Your task to perform on an android device: Search for a custom made wallet Image 0: 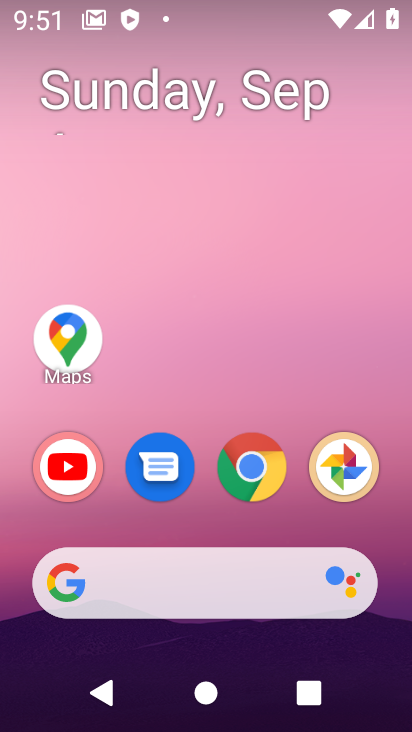
Step 0: click (257, 469)
Your task to perform on an android device: Search for a custom made wallet Image 1: 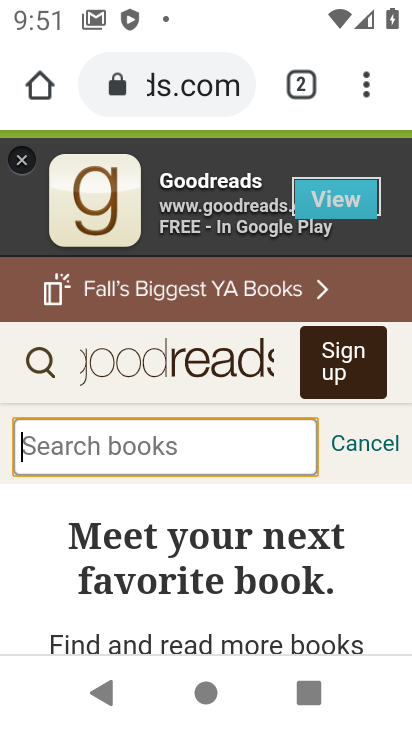
Step 1: click (190, 81)
Your task to perform on an android device: Search for a custom made wallet Image 2: 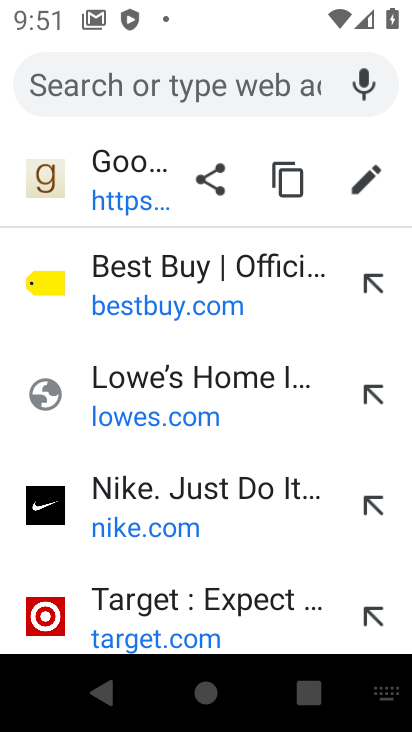
Step 2: type "wallet"
Your task to perform on an android device: Search for a custom made wallet Image 3: 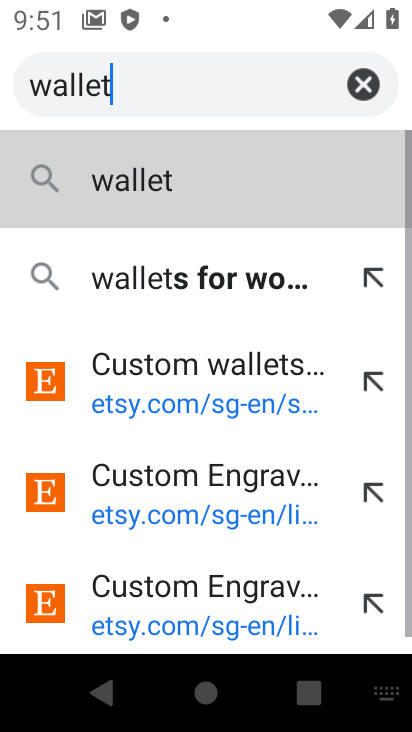
Step 3: type ""
Your task to perform on an android device: Search for a custom made wallet Image 4: 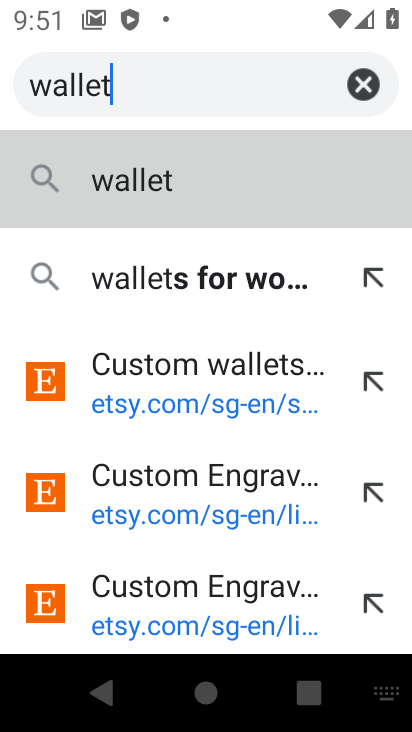
Step 4: click (180, 376)
Your task to perform on an android device: Search for a custom made wallet Image 5: 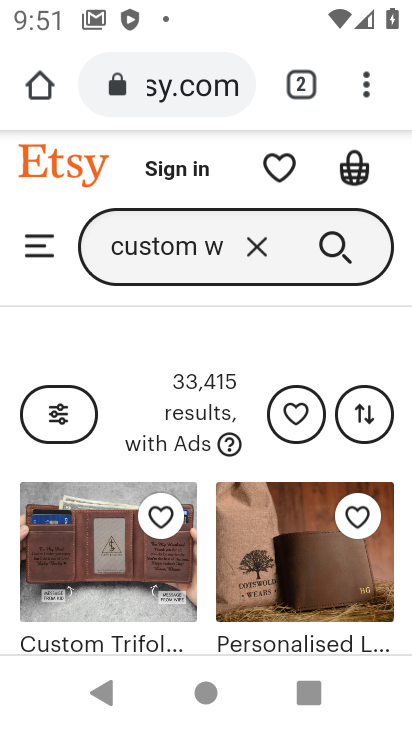
Step 5: click (318, 244)
Your task to perform on an android device: Search for a custom made wallet Image 6: 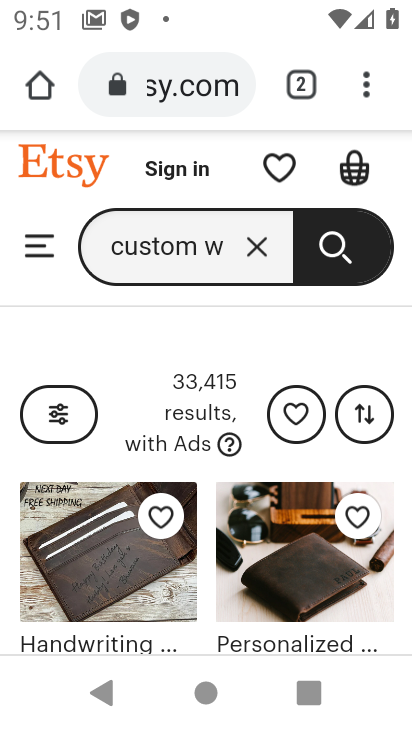
Step 6: drag from (411, 468) to (406, 346)
Your task to perform on an android device: Search for a custom made wallet Image 7: 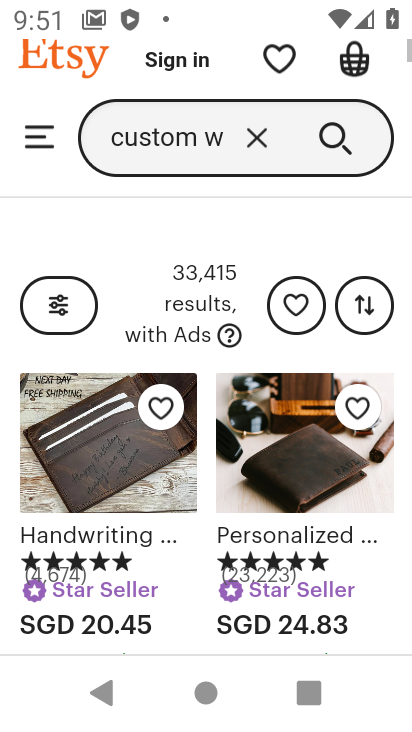
Step 7: drag from (391, 656) to (391, 309)
Your task to perform on an android device: Search for a custom made wallet Image 8: 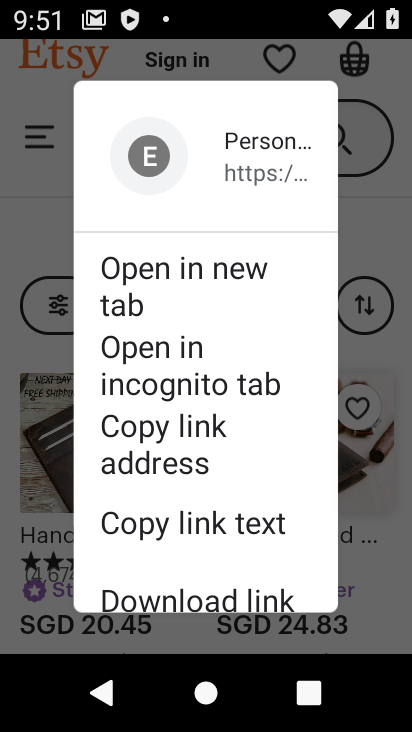
Step 8: click (400, 526)
Your task to perform on an android device: Search for a custom made wallet Image 9: 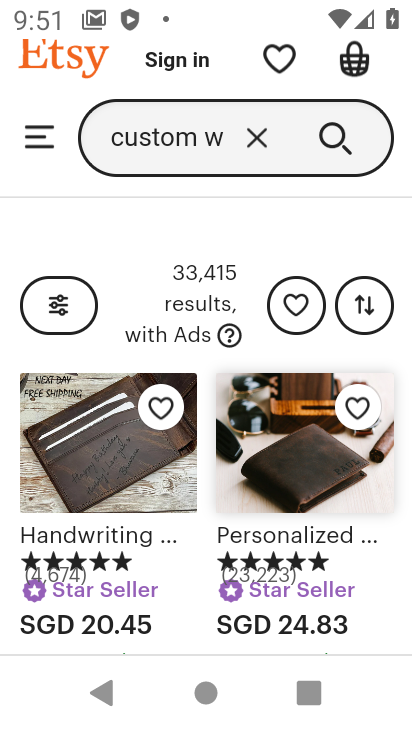
Step 9: drag from (345, 607) to (409, 202)
Your task to perform on an android device: Search for a custom made wallet Image 10: 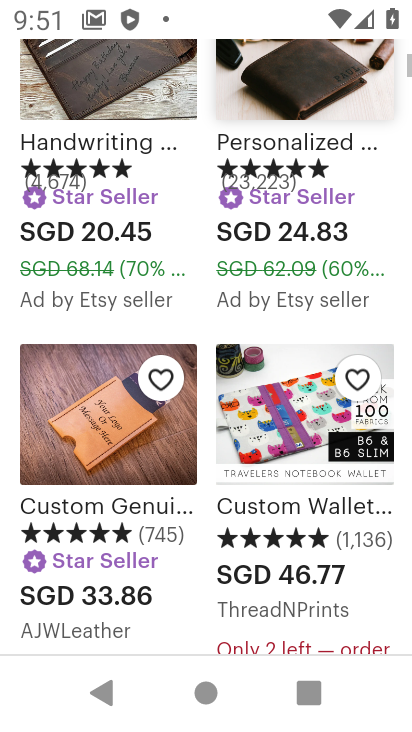
Step 10: drag from (370, 578) to (391, 47)
Your task to perform on an android device: Search for a custom made wallet Image 11: 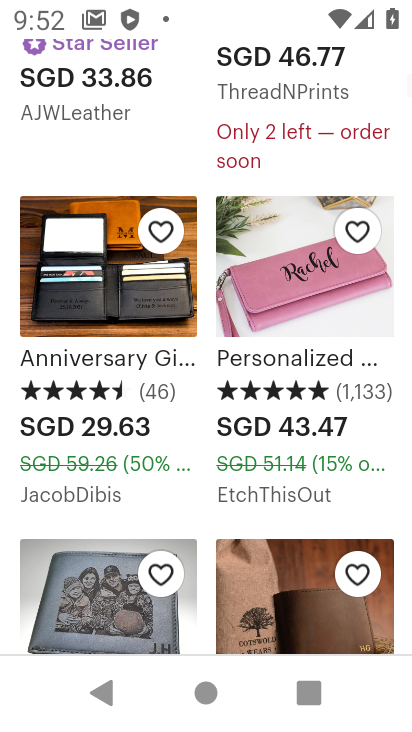
Step 11: drag from (344, 521) to (348, 97)
Your task to perform on an android device: Search for a custom made wallet Image 12: 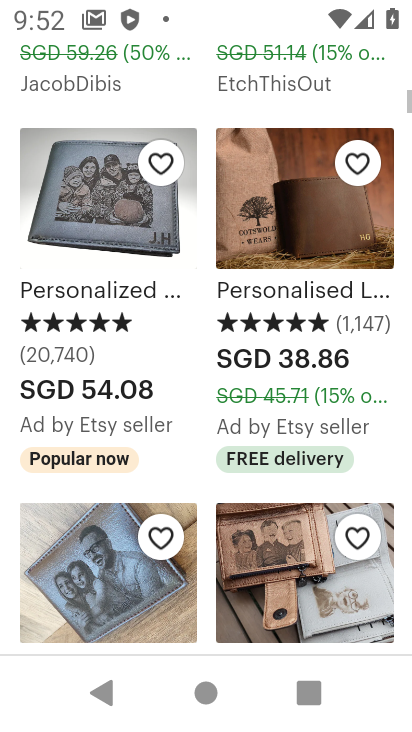
Step 12: drag from (394, 218) to (401, 85)
Your task to perform on an android device: Search for a custom made wallet Image 13: 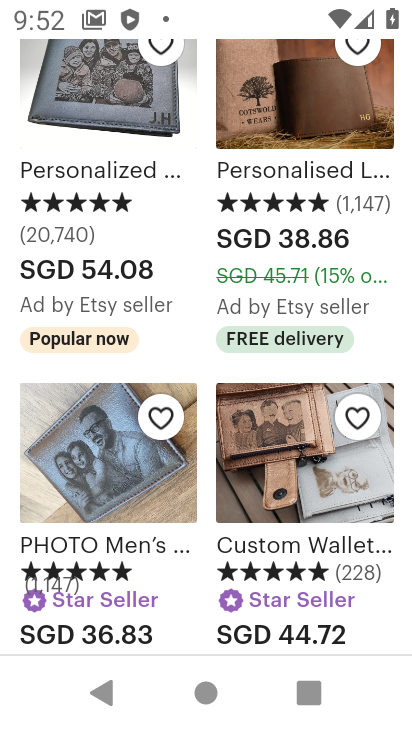
Step 13: drag from (354, 593) to (349, 225)
Your task to perform on an android device: Search for a custom made wallet Image 14: 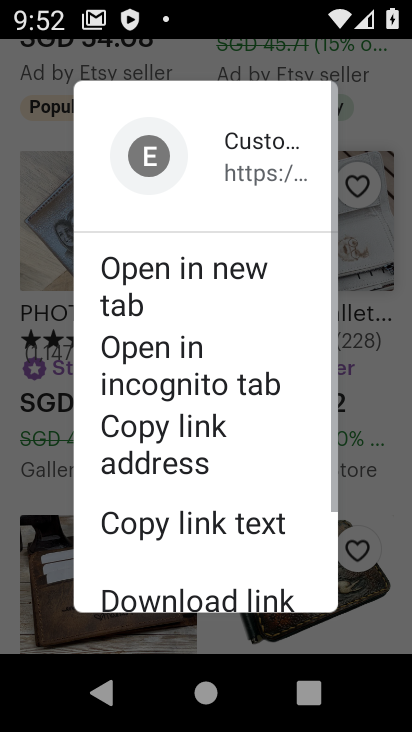
Step 14: click (406, 540)
Your task to perform on an android device: Search for a custom made wallet Image 15: 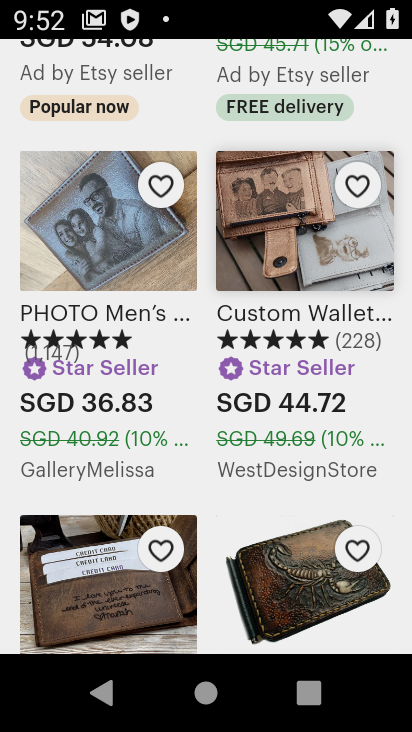
Step 15: drag from (386, 608) to (357, 111)
Your task to perform on an android device: Search for a custom made wallet Image 16: 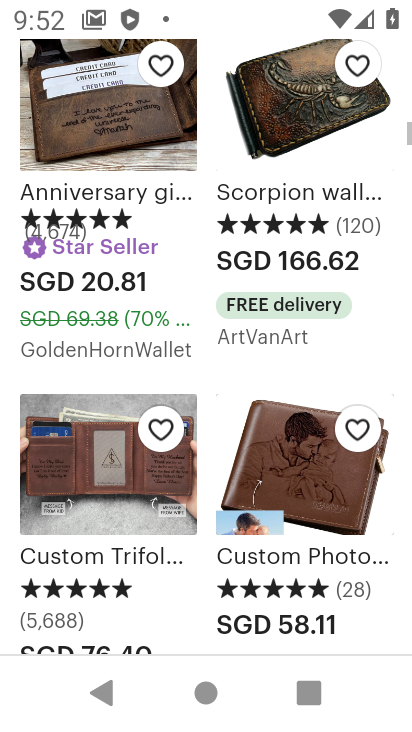
Step 16: drag from (324, 337) to (309, 188)
Your task to perform on an android device: Search for a custom made wallet Image 17: 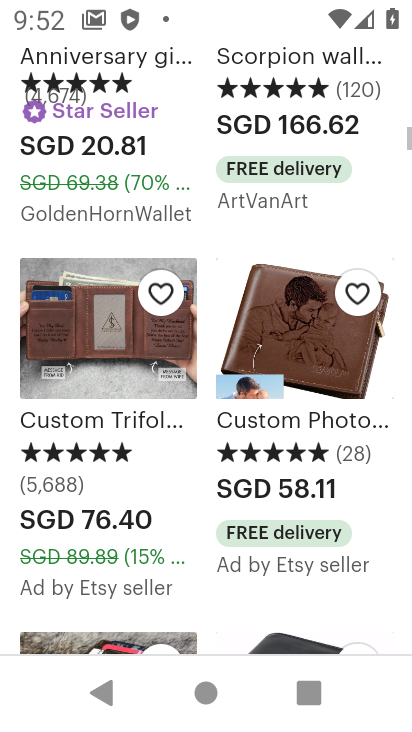
Step 17: drag from (332, 588) to (348, 231)
Your task to perform on an android device: Search for a custom made wallet Image 18: 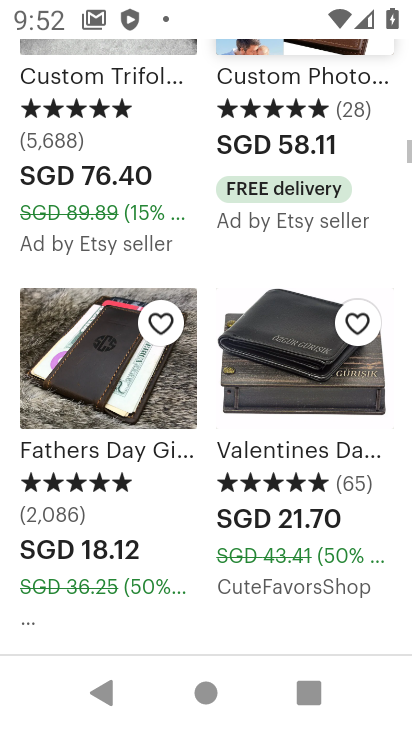
Step 18: drag from (307, 596) to (299, 227)
Your task to perform on an android device: Search for a custom made wallet Image 19: 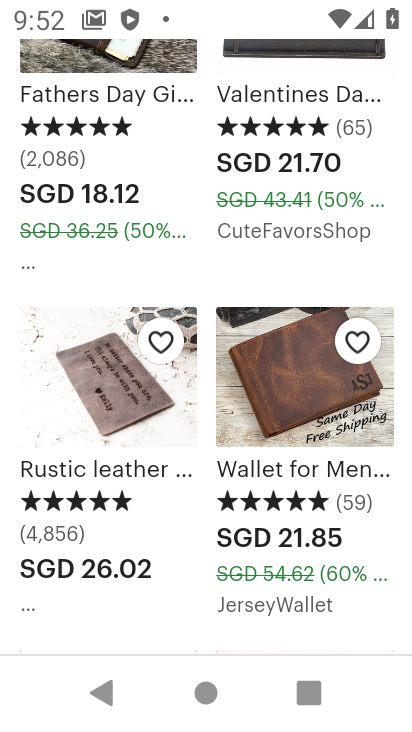
Step 19: drag from (387, 456) to (389, 160)
Your task to perform on an android device: Search for a custom made wallet Image 20: 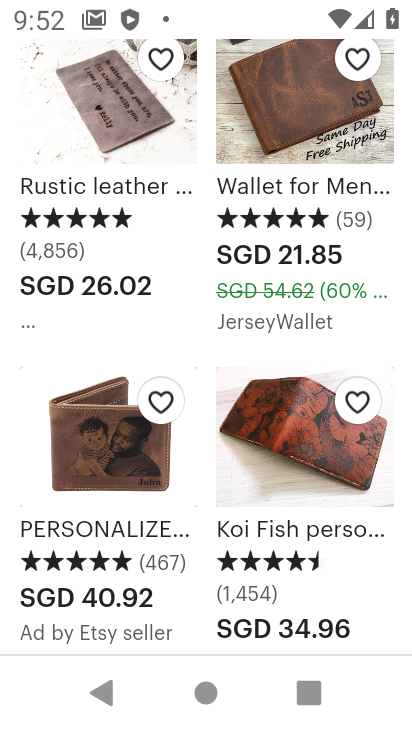
Step 20: drag from (404, 314) to (404, 204)
Your task to perform on an android device: Search for a custom made wallet Image 21: 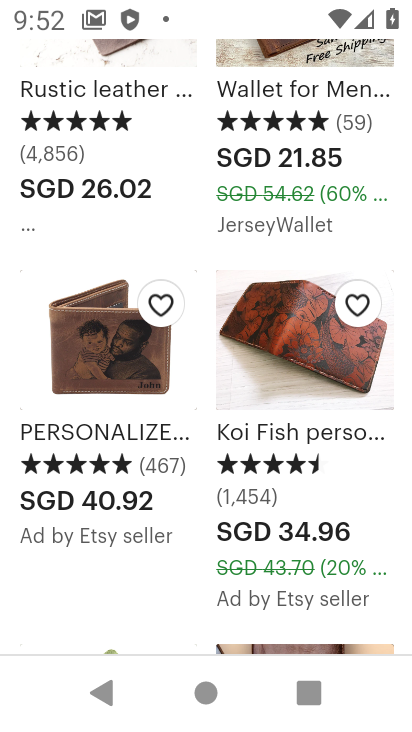
Step 21: drag from (349, 526) to (379, 222)
Your task to perform on an android device: Search for a custom made wallet Image 22: 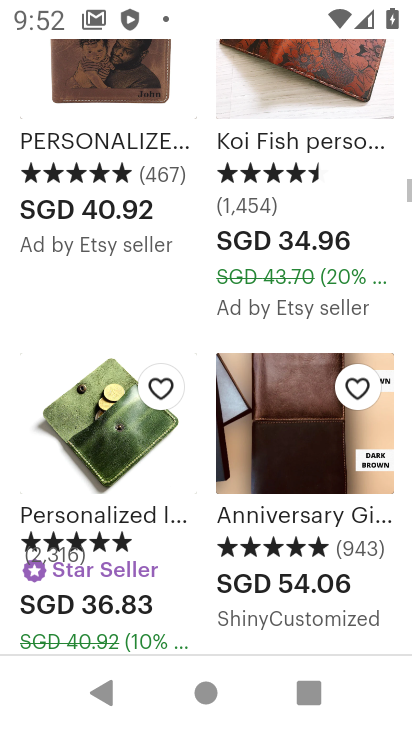
Step 22: drag from (393, 445) to (400, 194)
Your task to perform on an android device: Search for a custom made wallet Image 23: 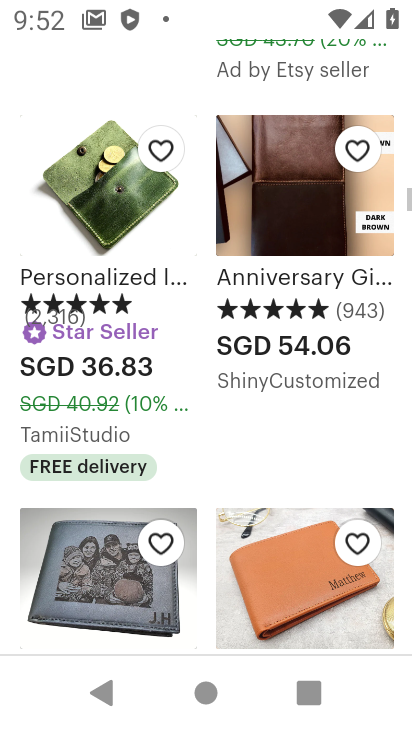
Step 23: drag from (380, 556) to (344, 154)
Your task to perform on an android device: Search for a custom made wallet Image 24: 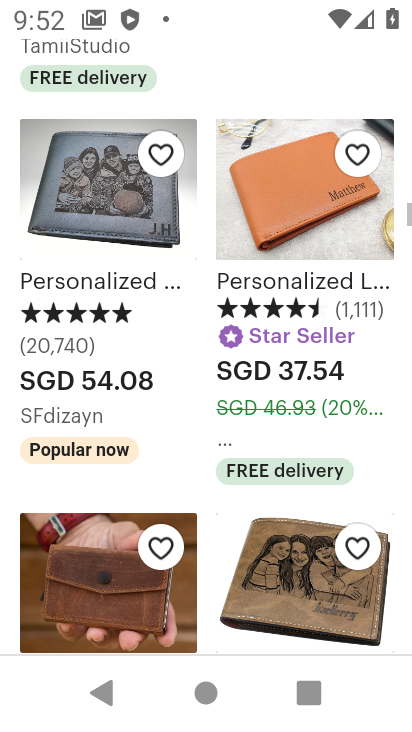
Step 24: drag from (347, 416) to (372, 149)
Your task to perform on an android device: Search for a custom made wallet Image 25: 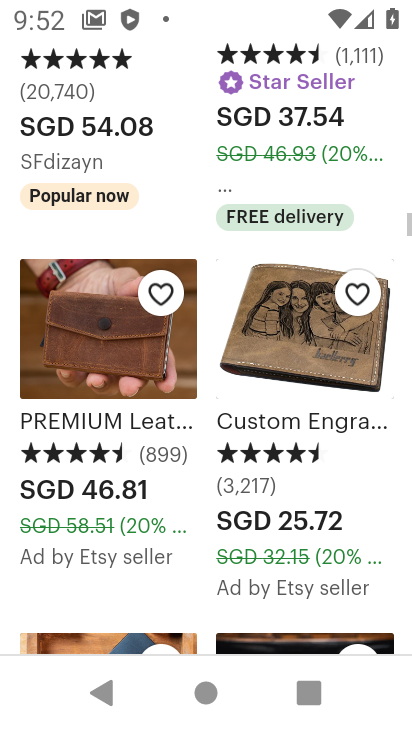
Step 25: drag from (389, 286) to (399, 205)
Your task to perform on an android device: Search for a custom made wallet Image 26: 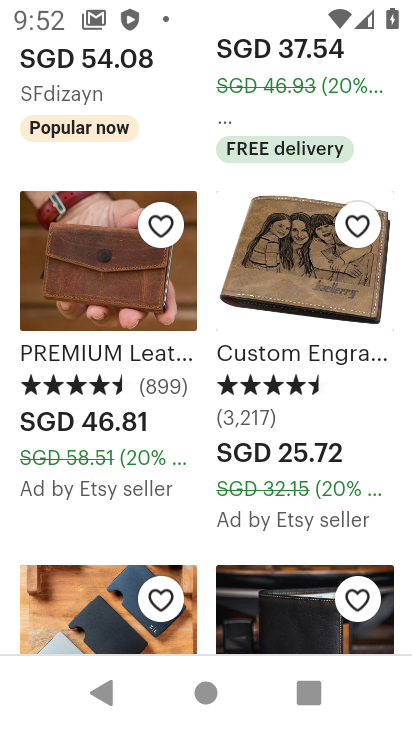
Step 26: click (80, 614)
Your task to perform on an android device: Search for a custom made wallet Image 27: 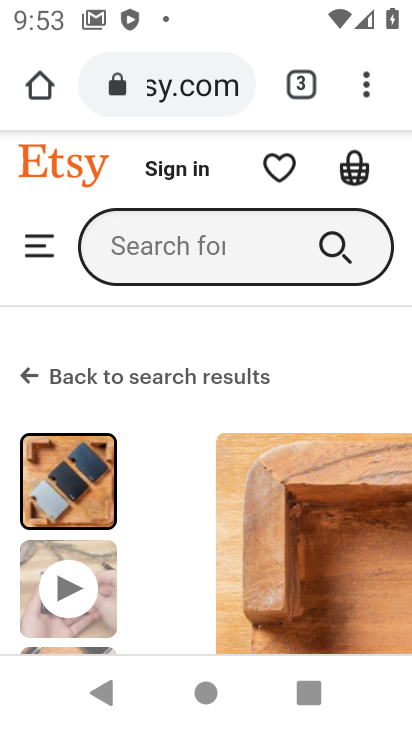
Step 27: drag from (234, 531) to (273, 245)
Your task to perform on an android device: Search for a custom made wallet Image 28: 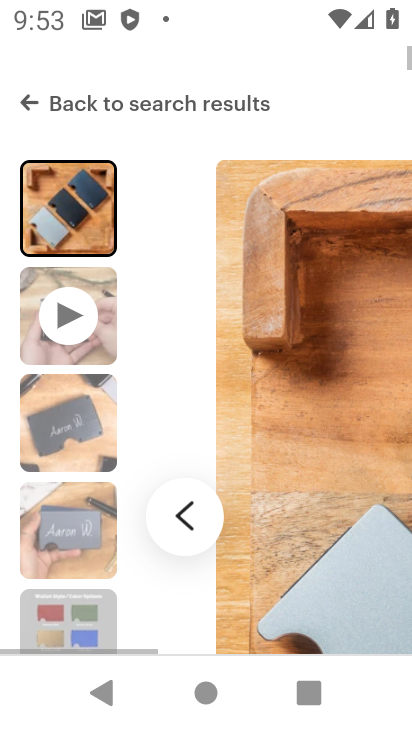
Step 28: drag from (287, 576) to (296, 162)
Your task to perform on an android device: Search for a custom made wallet Image 29: 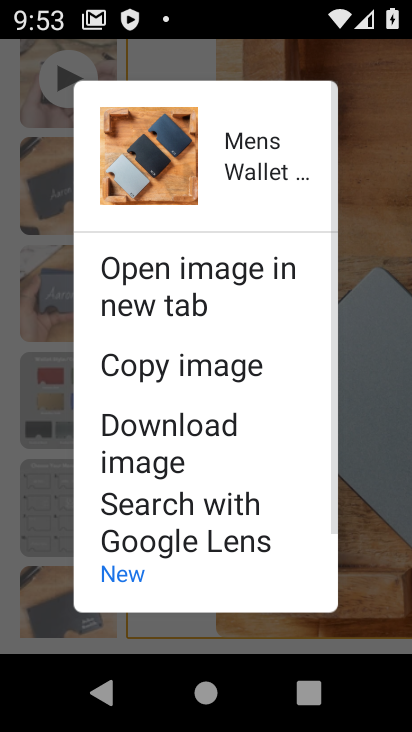
Step 29: click (352, 421)
Your task to perform on an android device: Search for a custom made wallet Image 30: 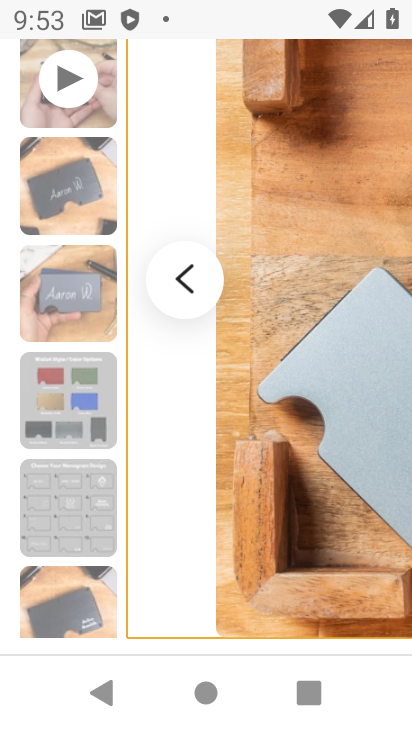
Step 30: click (393, 232)
Your task to perform on an android device: Search for a custom made wallet Image 31: 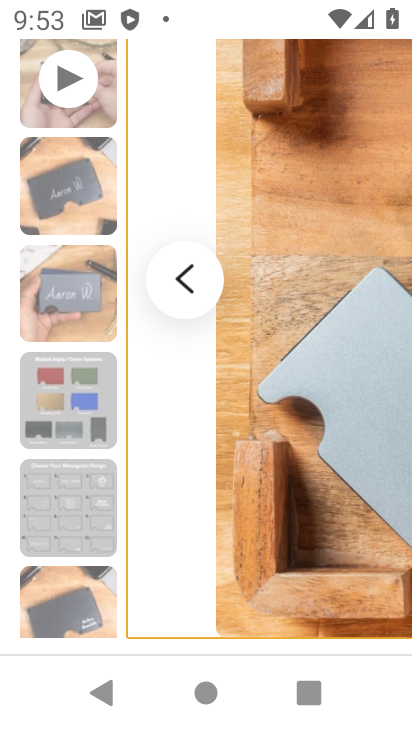
Step 31: task complete